Your task to perform on an android device: Go to Reddit.com Image 0: 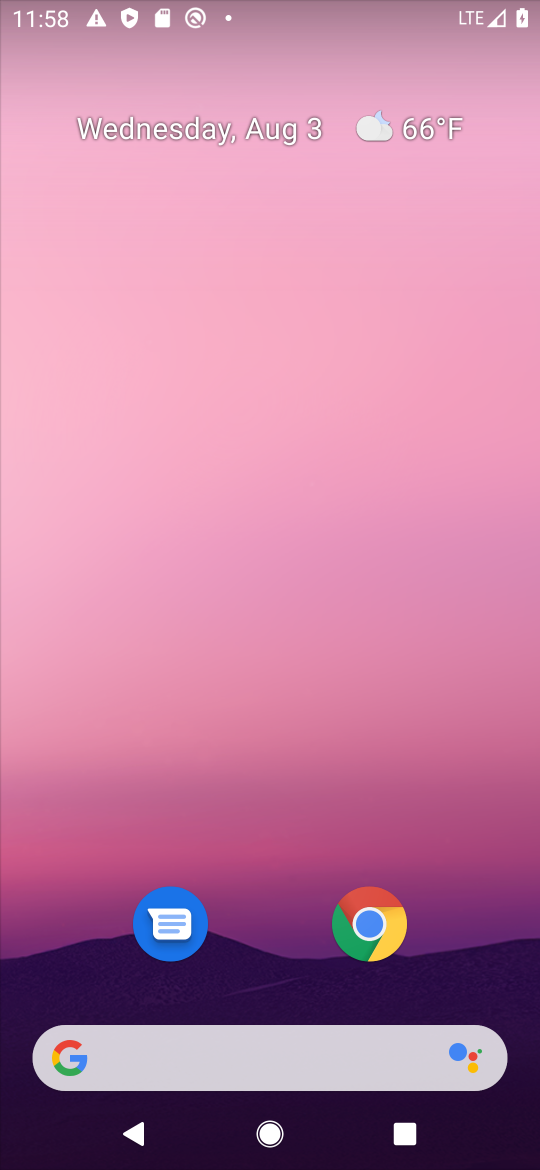
Step 0: click (201, 1074)
Your task to perform on an android device: Go to Reddit.com Image 1: 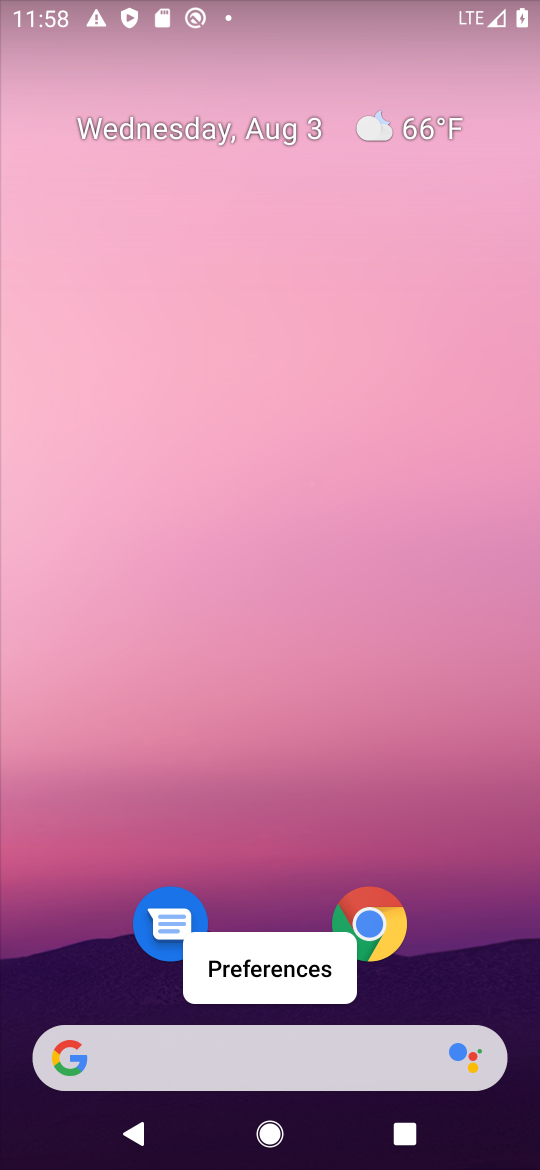
Step 1: click (107, 1055)
Your task to perform on an android device: Go to Reddit.com Image 2: 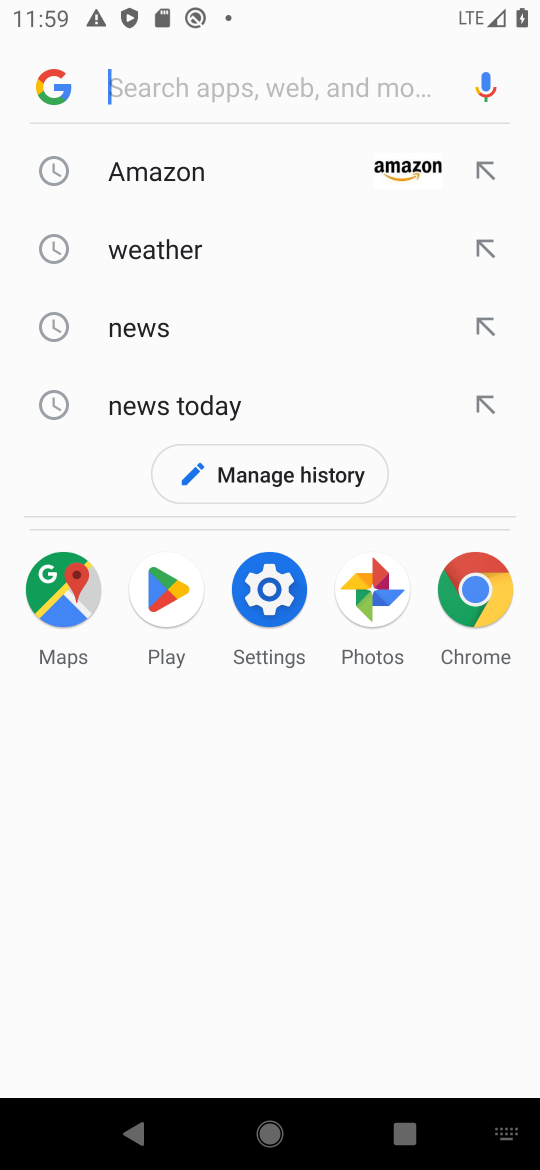
Step 2: type "Reddit.com"
Your task to perform on an android device: Go to Reddit.com Image 3: 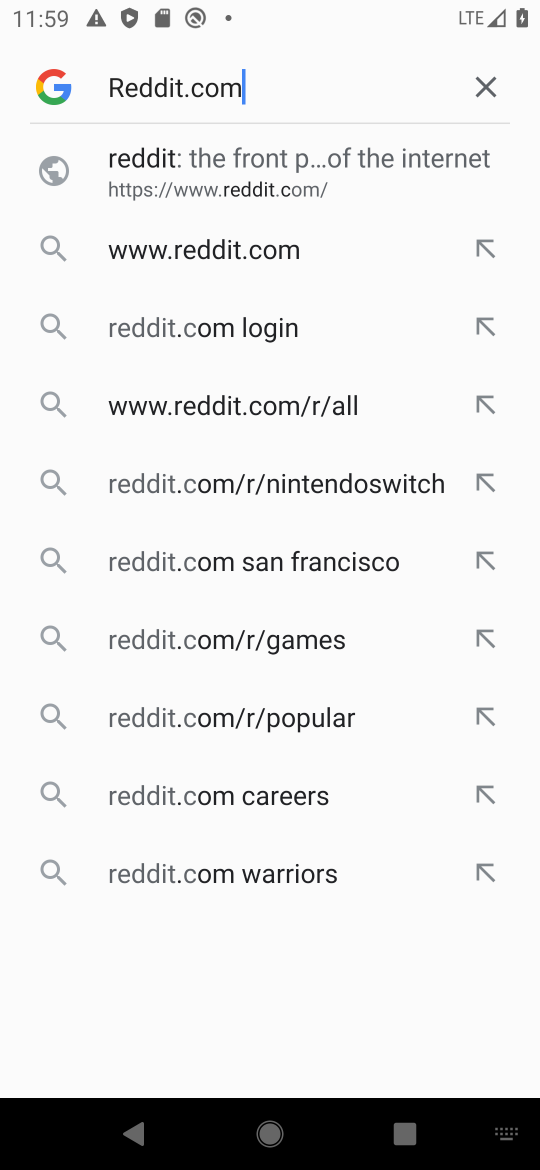
Step 3: type ""
Your task to perform on an android device: Go to Reddit.com Image 4: 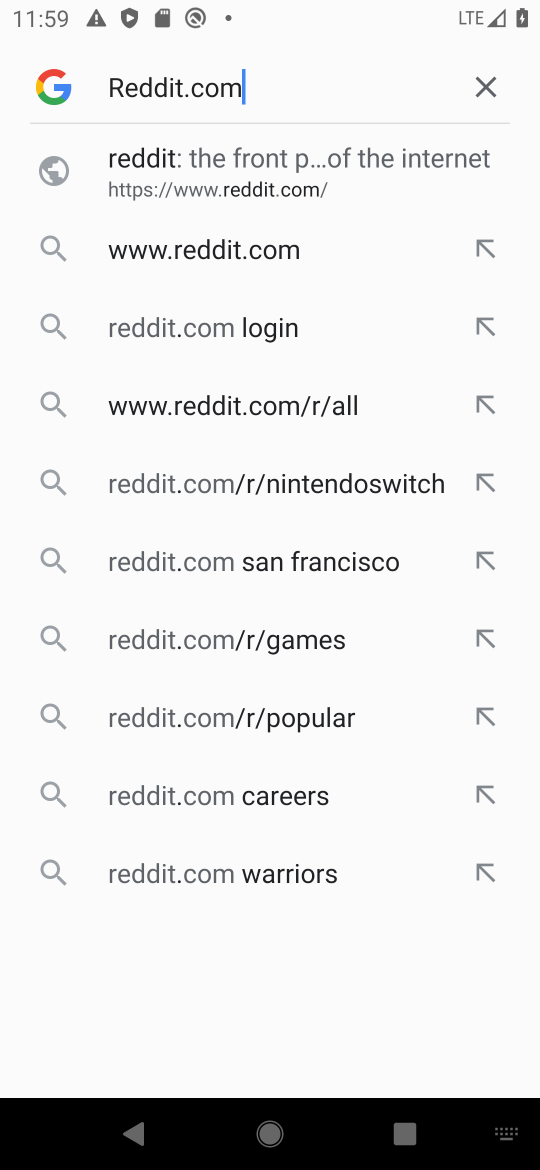
Step 4: click (171, 260)
Your task to perform on an android device: Go to Reddit.com Image 5: 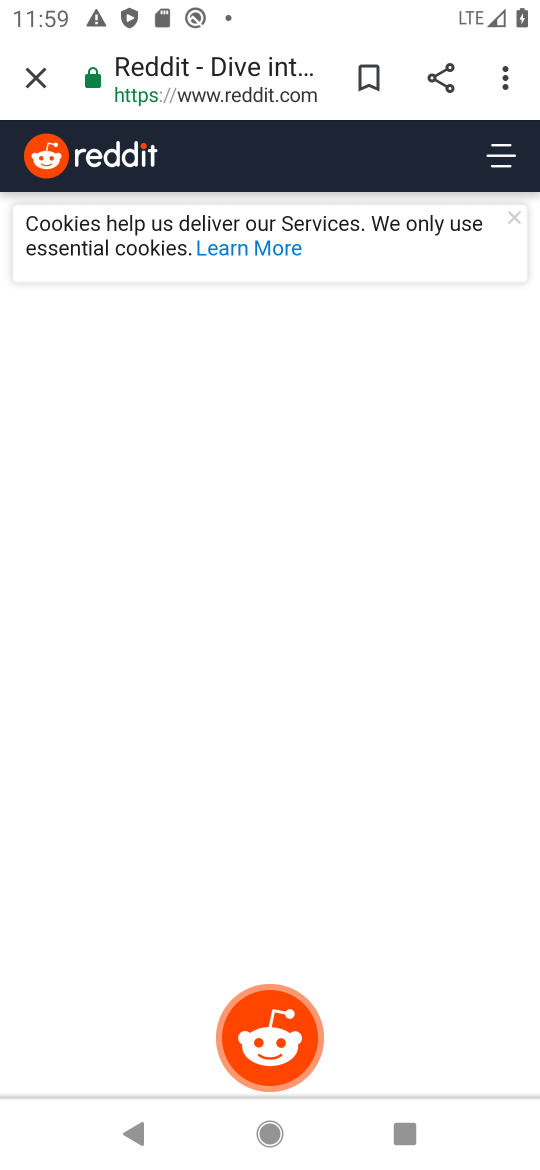
Step 5: task complete